Your task to perform on an android device: check storage Image 0: 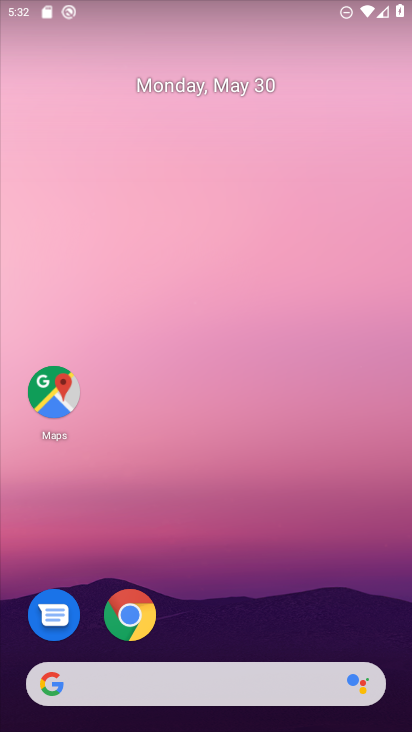
Step 0: drag from (206, 618) to (295, 53)
Your task to perform on an android device: check storage Image 1: 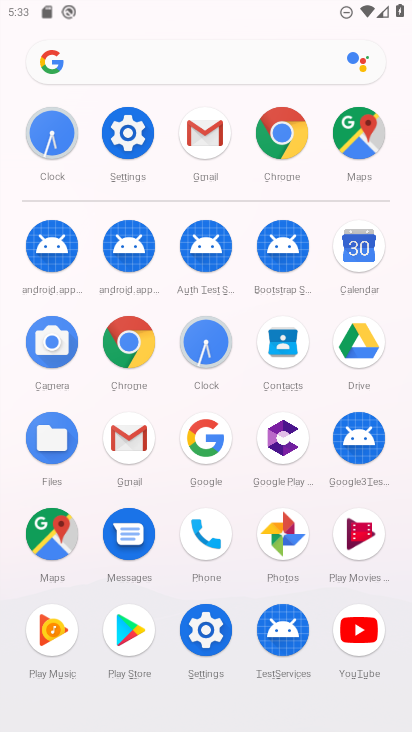
Step 1: click (209, 610)
Your task to perform on an android device: check storage Image 2: 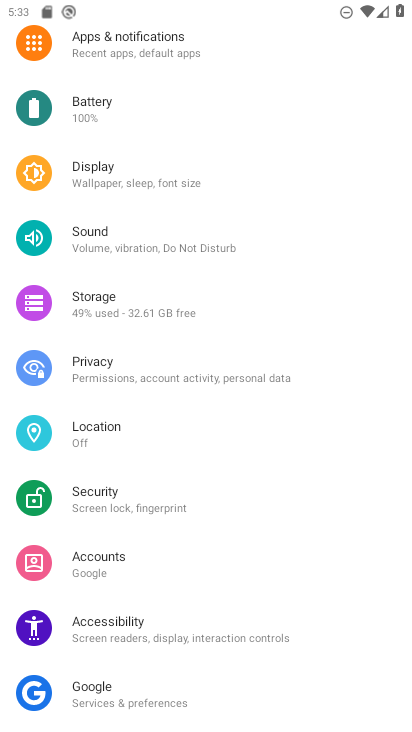
Step 2: click (193, 319)
Your task to perform on an android device: check storage Image 3: 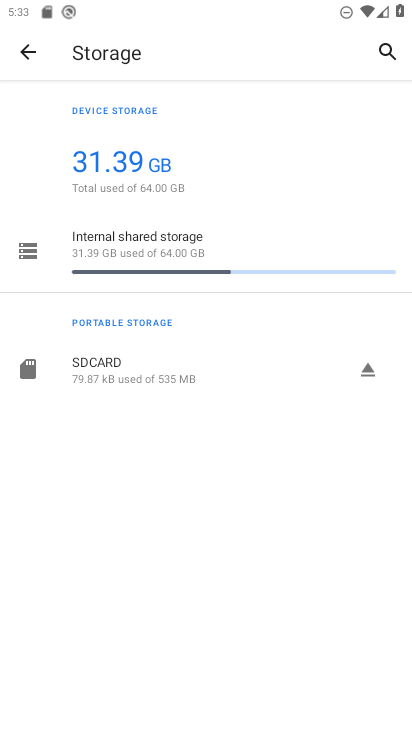
Step 3: task complete